Your task to perform on an android device: Go to eBay Image 0: 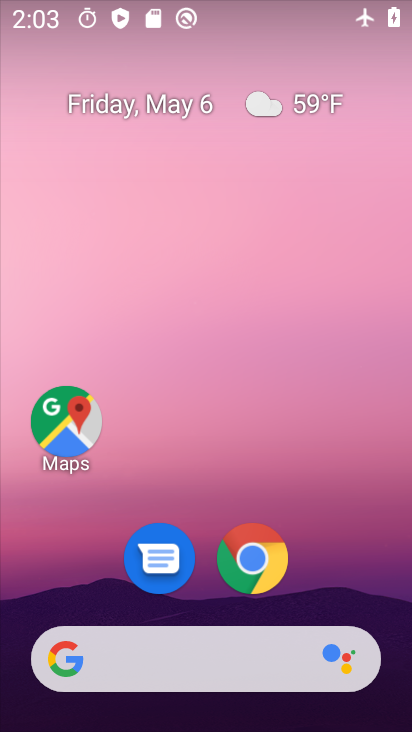
Step 0: click (255, 554)
Your task to perform on an android device: Go to eBay Image 1: 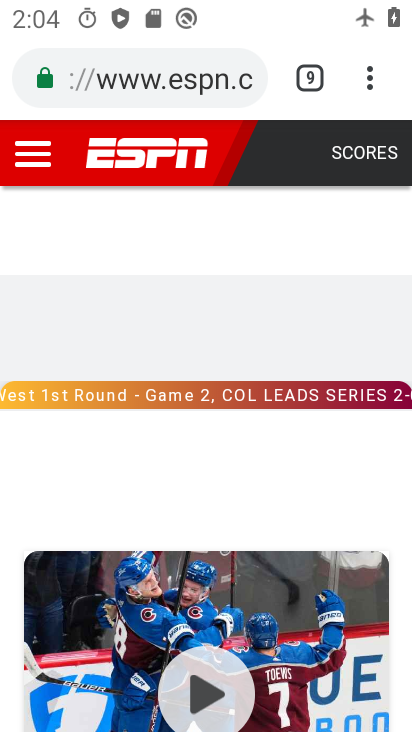
Step 1: drag from (368, 71) to (89, 148)
Your task to perform on an android device: Go to eBay Image 2: 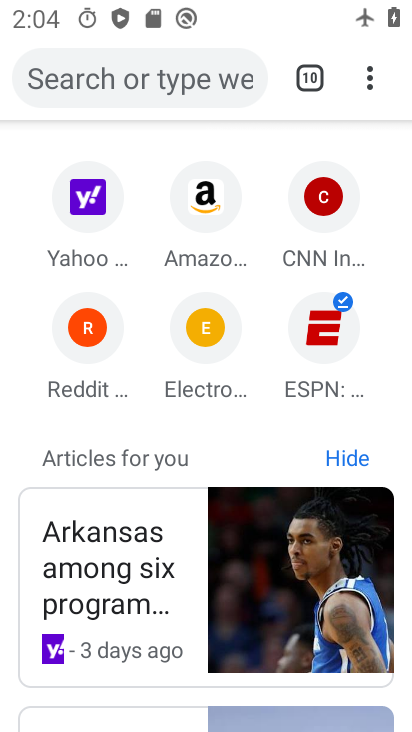
Step 2: click (139, 85)
Your task to perform on an android device: Go to eBay Image 3: 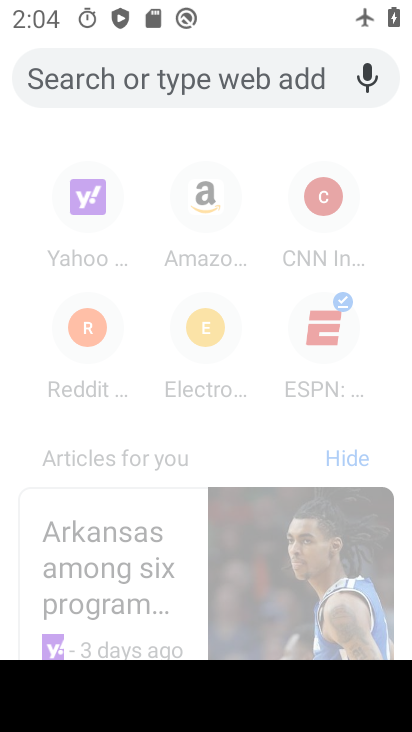
Step 3: type "aBay"
Your task to perform on an android device: Go to eBay Image 4: 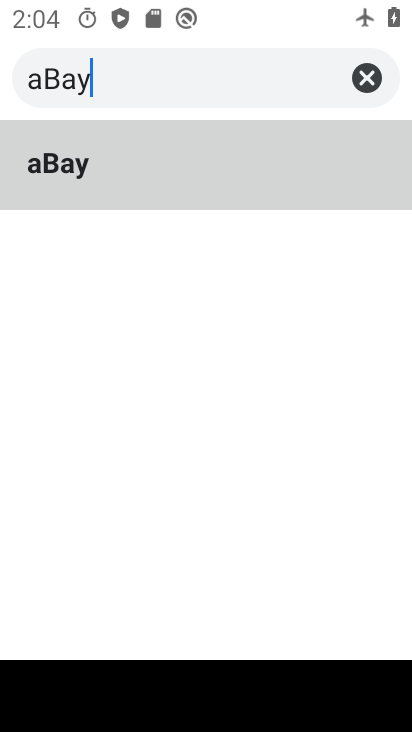
Step 4: type ""
Your task to perform on an android device: Go to eBay Image 5: 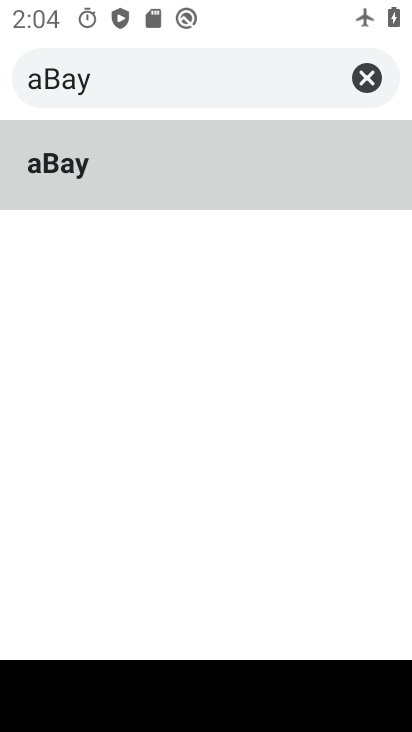
Step 5: click (65, 167)
Your task to perform on an android device: Go to eBay Image 6: 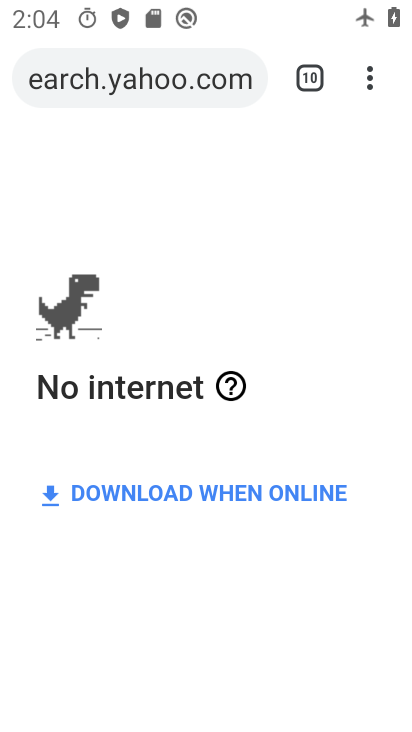
Step 6: task complete